Your task to perform on an android device: Open Google Maps and go to "Timeline" Image 0: 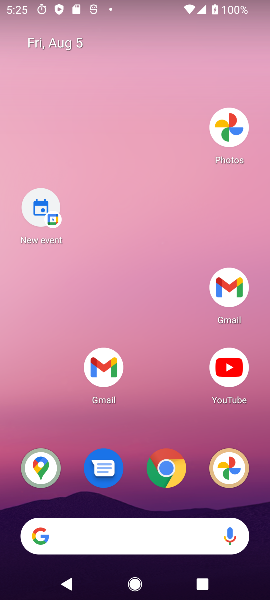
Step 0: drag from (203, 583) to (135, 230)
Your task to perform on an android device: Open Google Maps and go to "Timeline" Image 1: 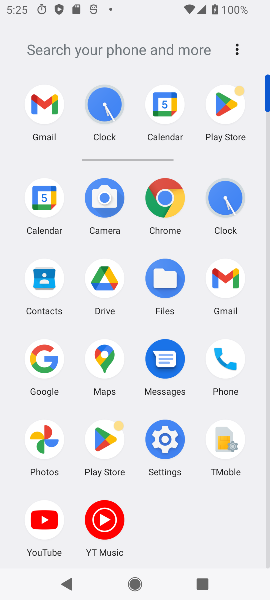
Step 1: click (98, 365)
Your task to perform on an android device: Open Google Maps and go to "Timeline" Image 2: 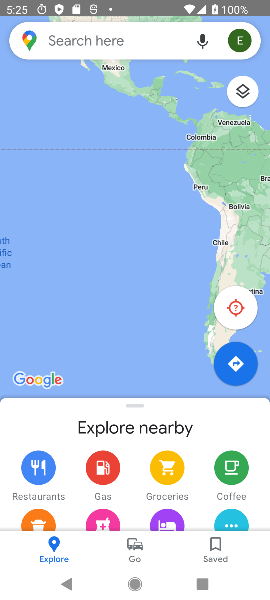
Step 2: click (35, 41)
Your task to perform on an android device: Open Google Maps and go to "Timeline" Image 3: 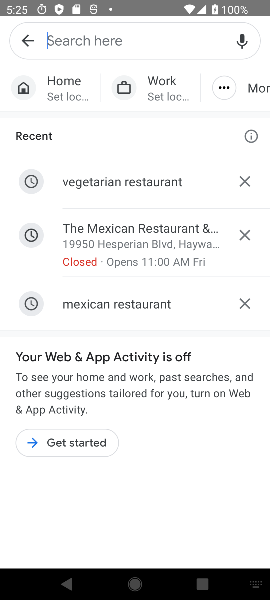
Step 3: click (27, 41)
Your task to perform on an android device: Open Google Maps and go to "Timeline" Image 4: 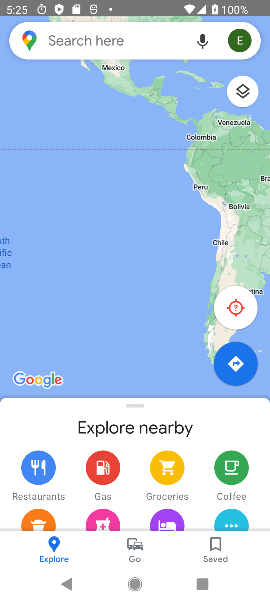
Step 4: click (237, 45)
Your task to perform on an android device: Open Google Maps and go to "Timeline" Image 5: 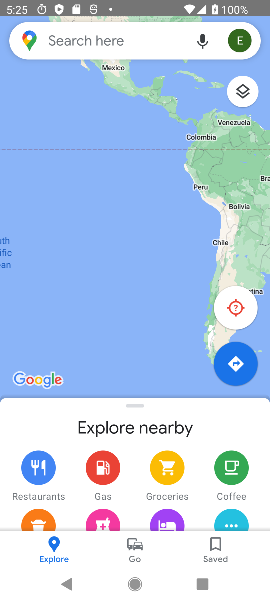
Step 5: click (237, 45)
Your task to perform on an android device: Open Google Maps and go to "Timeline" Image 6: 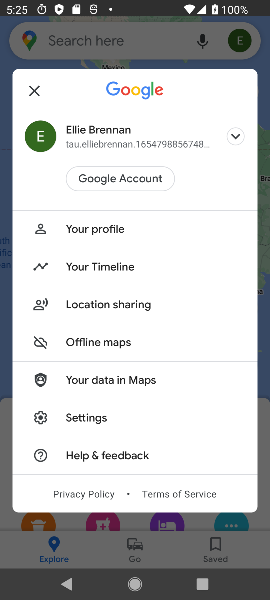
Step 6: click (118, 264)
Your task to perform on an android device: Open Google Maps and go to "Timeline" Image 7: 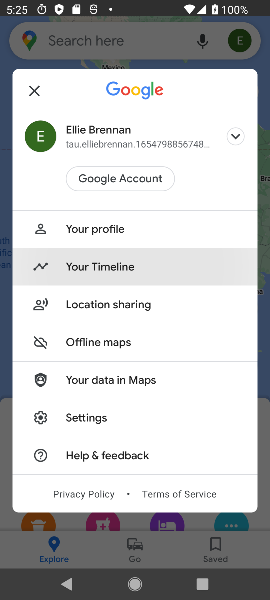
Step 7: click (110, 266)
Your task to perform on an android device: Open Google Maps and go to "Timeline" Image 8: 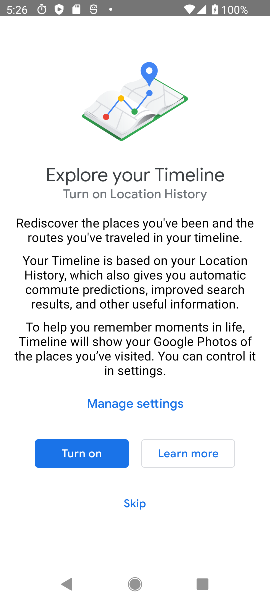
Step 8: click (139, 503)
Your task to perform on an android device: Open Google Maps and go to "Timeline" Image 9: 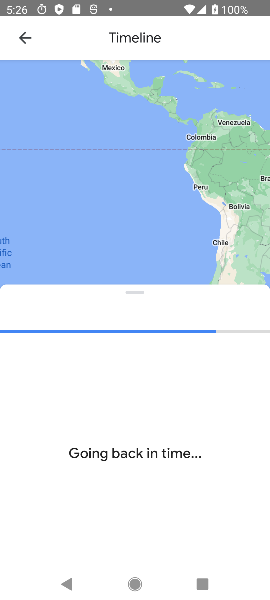
Step 9: task complete